Your task to perform on an android device: Open Maps and search for coffee Image 0: 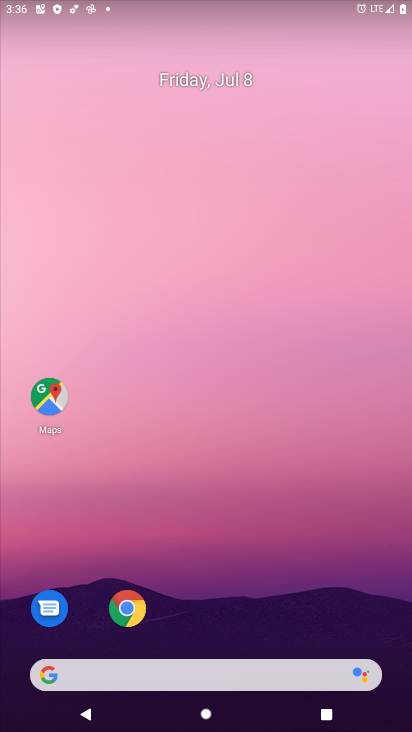
Step 0: drag from (255, 621) to (297, 28)
Your task to perform on an android device: Open Maps and search for coffee Image 1: 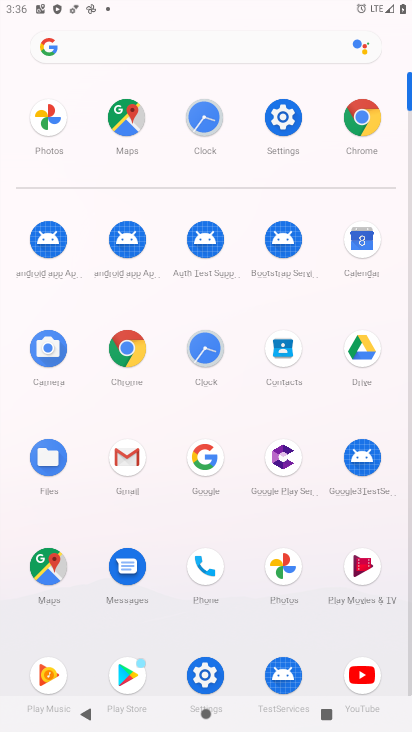
Step 1: click (58, 560)
Your task to perform on an android device: Open Maps and search for coffee Image 2: 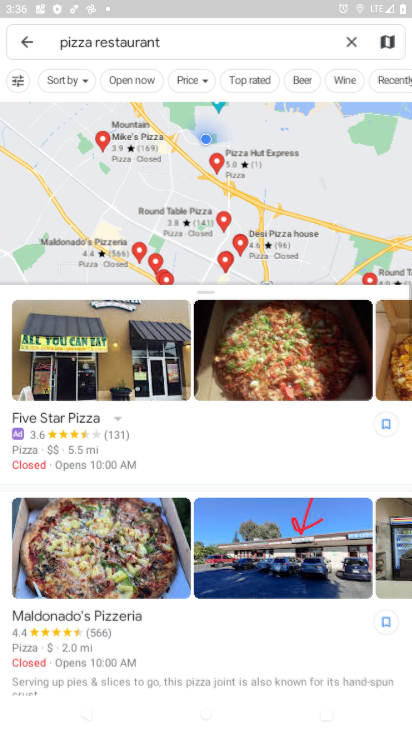
Step 2: press back button
Your task to perform on an android device: Open Maps and search for coffee Image 3: 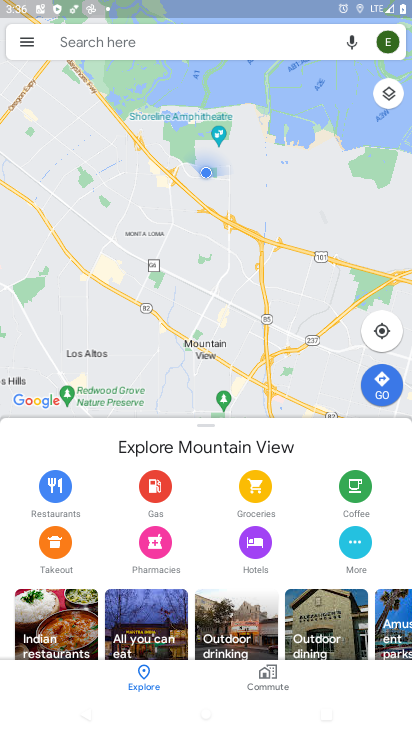
Step 3: click (232, 38)
Your task to perform on an android device: Open Maps and search for coffee Image 4: 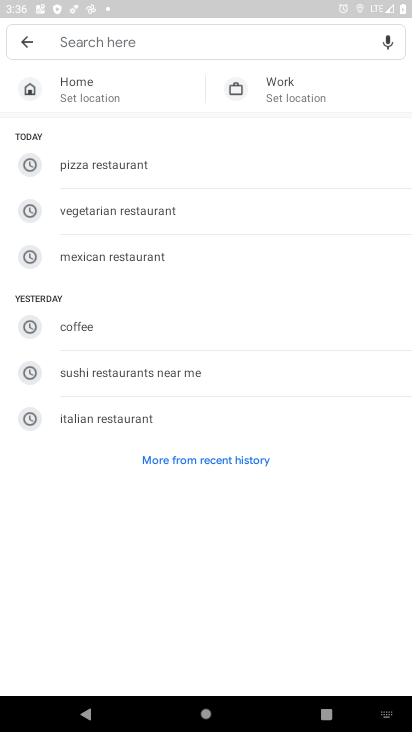
Step 4: click (70, 323)
Your task to perform on an android device: Open Maps and search for coffee Image 5: 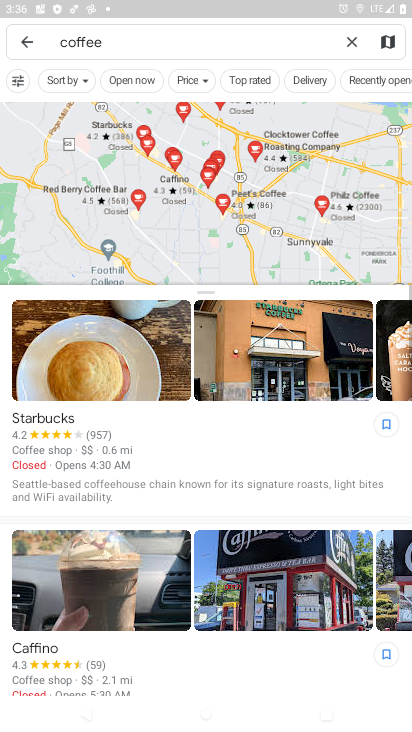
Step 5: task complete